Your task to perform on an android device: turn off priority inbox in the gmail app Image 0: 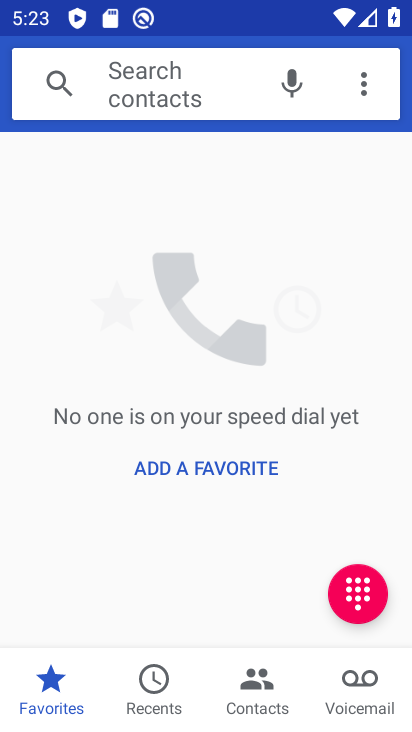
Step 0: press home button
Your task to perform on an android device: turn off priority inbox in the gmail app Image 1: 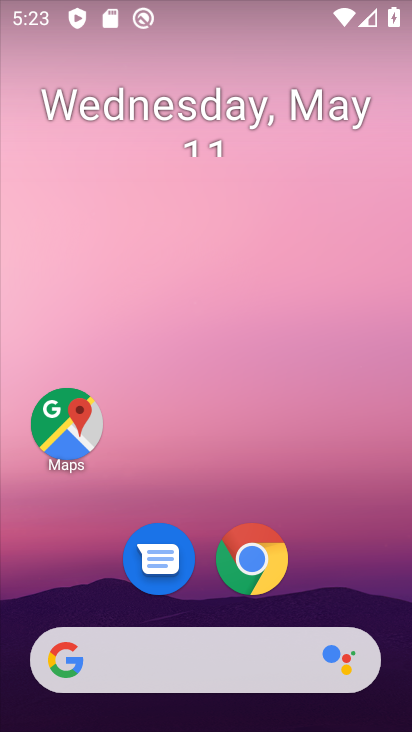
Step 1: drag from (318, 500) to (362, 11)
Your task to perform on an android device: turn off priority inbox in the gmail app Image 2: 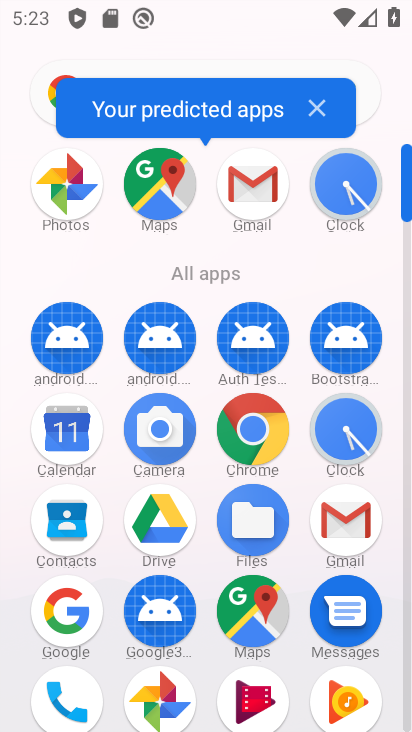
Step 2: click (262, 177)
Your task to perform on an android device: turn off priority inbox in the gmail app Image 3: 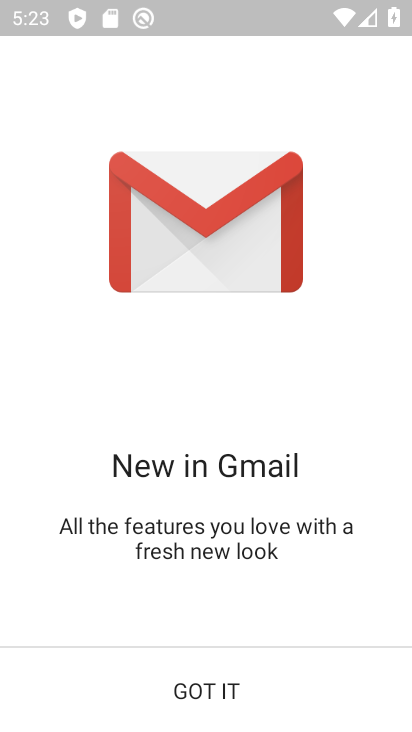
Step 3: click (268, 687)
Your task to perform on an android device: turn off priority inbox in the gmail app Image 4: 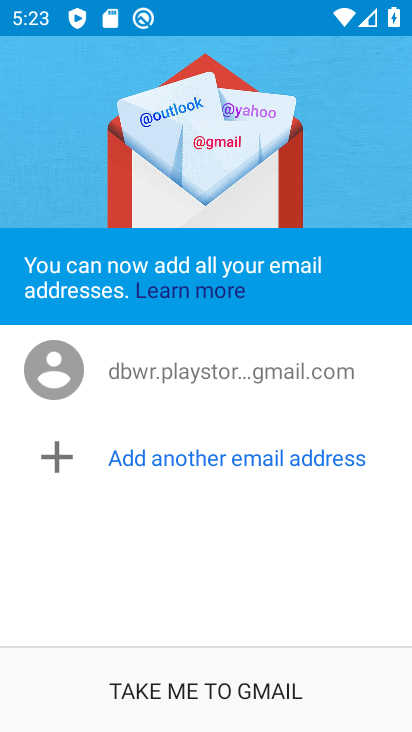
Step 4: click (247, 699)
Your task to perform on an android device: turn off priority inbox in the gmail app Image 5: 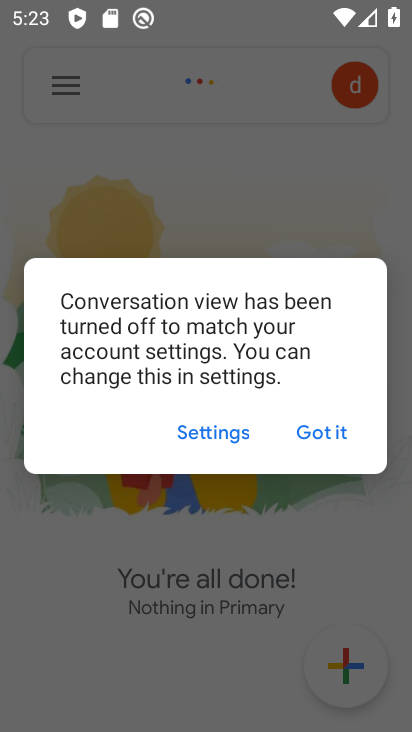
Step 5: click (316, 429)
Your task to perform on an android device: turn off priority inbox in the gmail app Image 6: 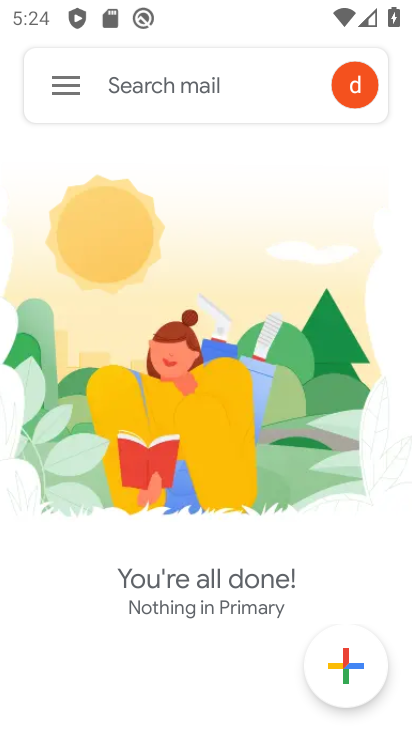
Step 6: click (71, 82)
Your task to perform on an android device: turn off priority inbox in the gmail app Image 7: 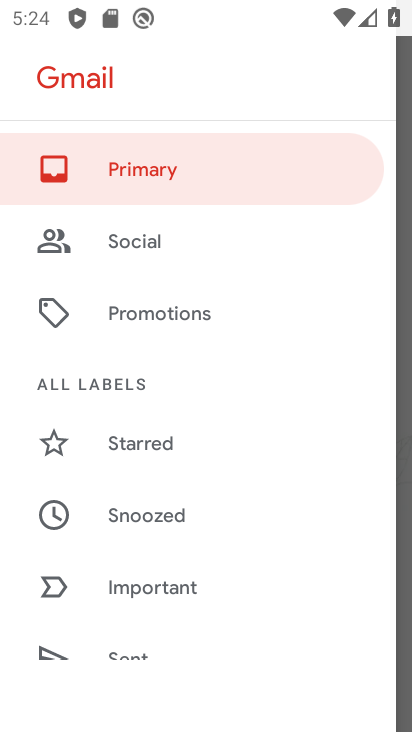
Step 7: drag from (205, 585) to (225, 232)
Your task to perform on an android device: turn off priority inbox in the gmail app Image 8: 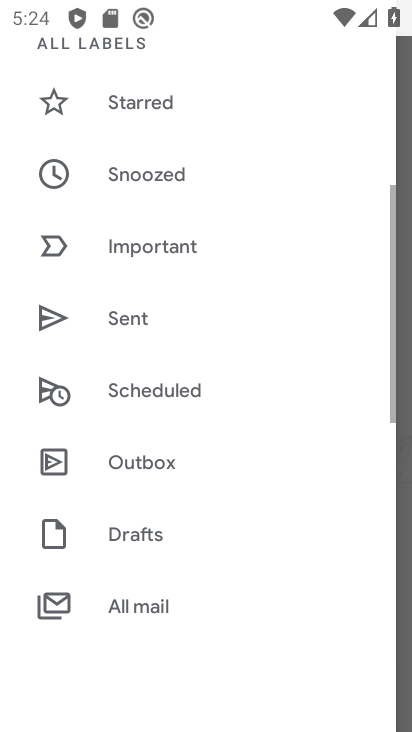
Step 8: drag from (140, 599) to (143, 326)
Your task to perform on an android device: turn off priority inbox in the gmail app Image 9: 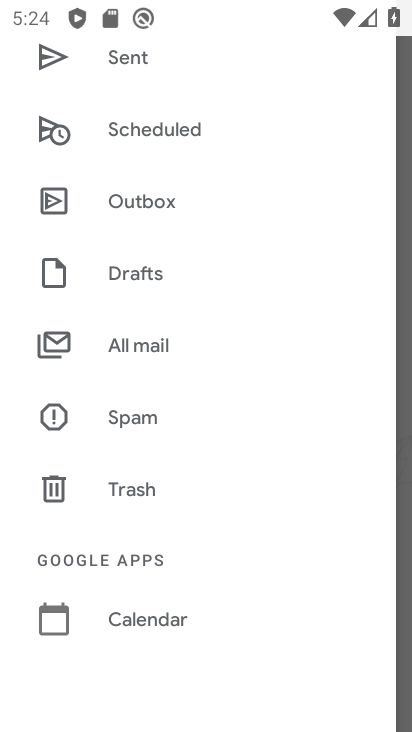
Step 9: drag from (192, 117) to (229, 575)
Your task to perform on an android device: turn off priority inbox in the gmail app Image 10: 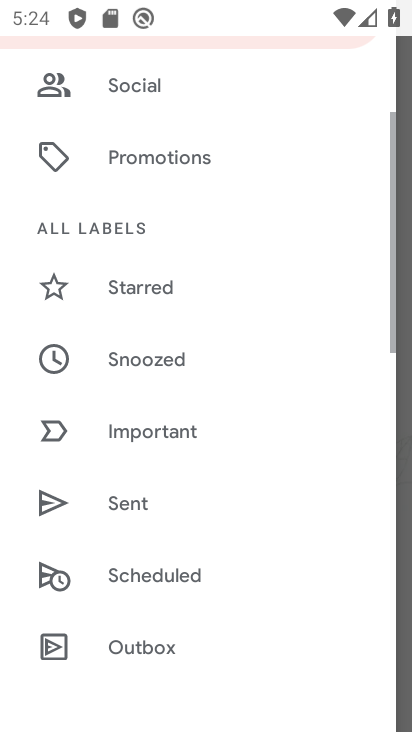
Step 10: drag from (179, 232) to (203, 638)
Your task to perform on an android device: turn off priority inbox in the gmail app Image 11: 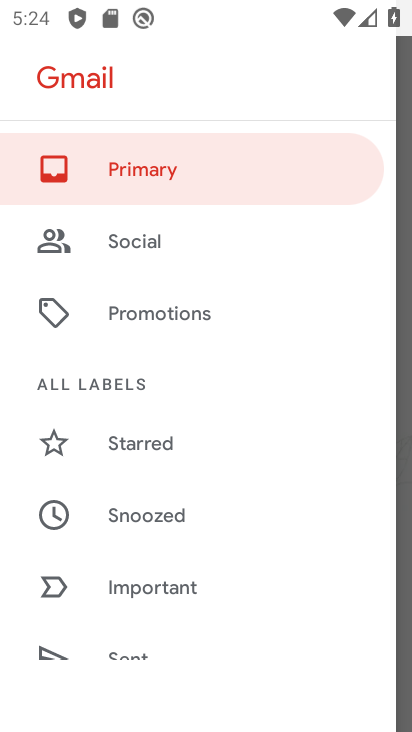
Step 11: drag from (233, 678) to (201, 168)
Your task to perform on an android device: turn off priority inbox in the gmail app Image 12: 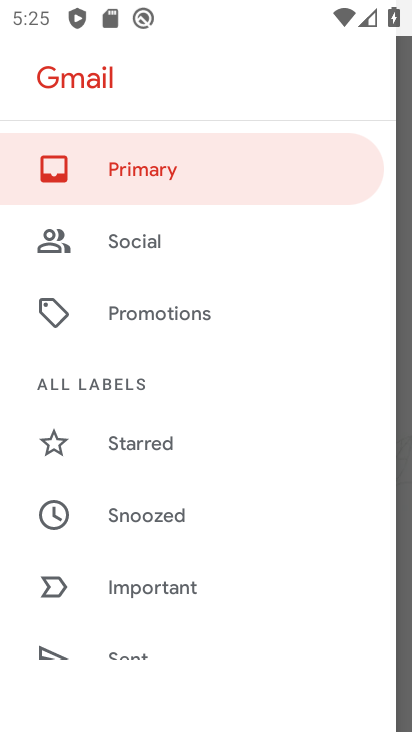
Step 12: drag from (173, 530) to (189, 61)
Your task to perform on an android device: turn off priority inbox in the gmail app Image 13: 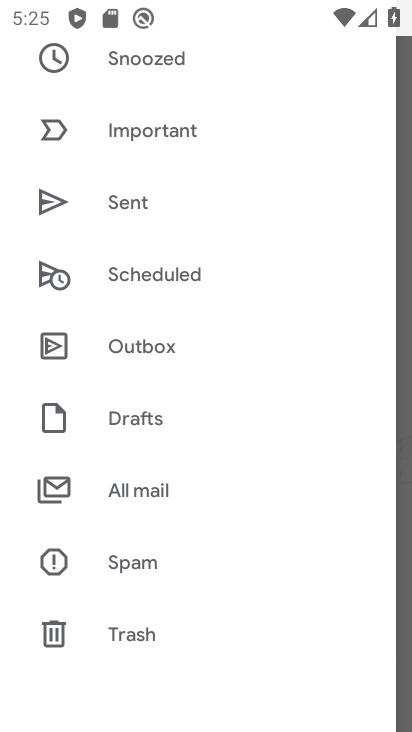
Step 13: drag from (158, 563) to (160, 329)
Your task to perform on an android device: turn off priority inbox in the gmail app Image 14: 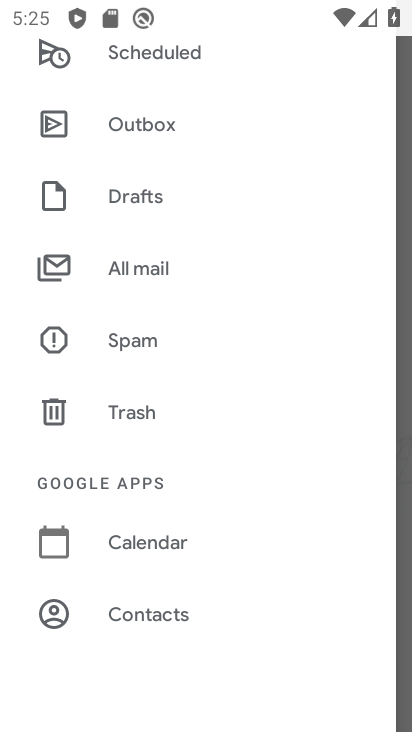
Step 14: drag from (157, 306) to (184, 635)
Your task to perform on an android device: turn off priority inbox in the gmail app Image 15: 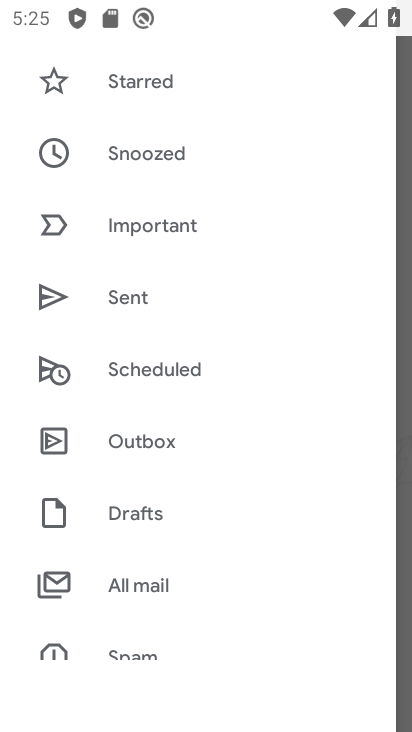
Step 15: drag from (134, 283) to (157, 643)
Your task to perform on an android device: turn off priority inbox in the gmail app Image 16: 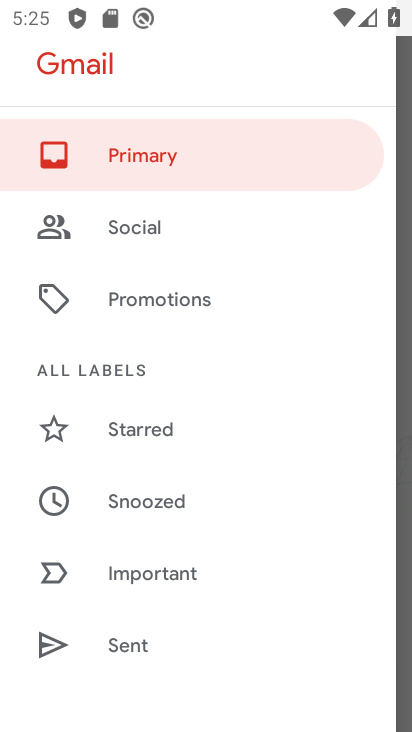
Step 16: drag from (192, 459) to (164, 73)
Your task to perform on an android device: turn off priority inbox in the gmail app Image 17: 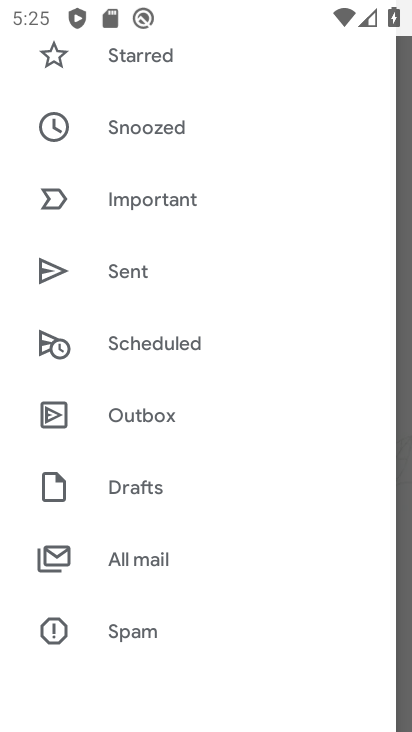
Step 17: drag from (216, 574) to (224, 181)
Your task to perform on an android device: turn off priority inbox in the gmail app Image 18: 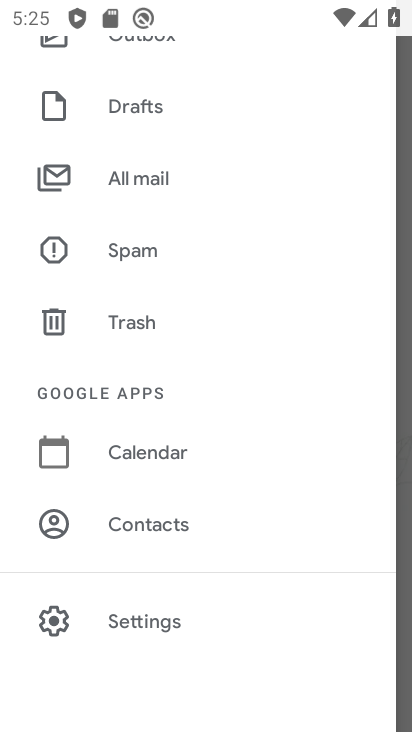
Step 18: click (185, 618)
Your task to perform on an android device: turn off priority inbox in the gmail app Image 19: 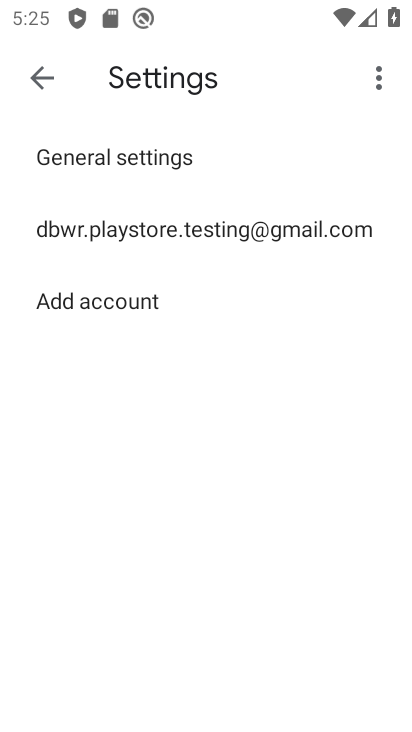
Step 19: click (229, 237)
Your task to perform on an android device: turn off priority inbox in the gmail app Image 20: 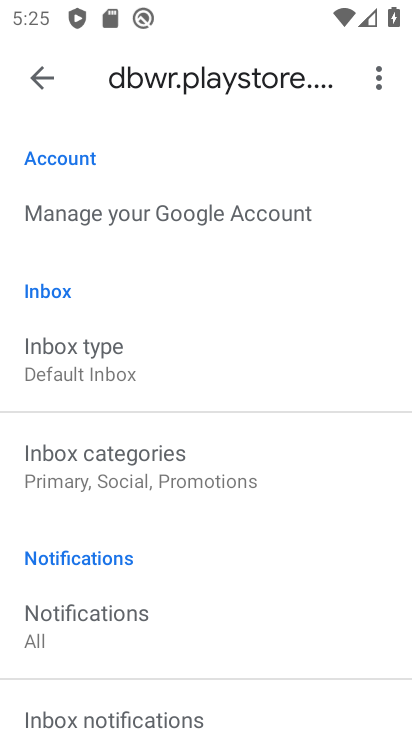
Step 20: drag from (172, 608) to (161, 262)
Your task to perform on an android device: turn off priority inbox in the gmail app Image 21: 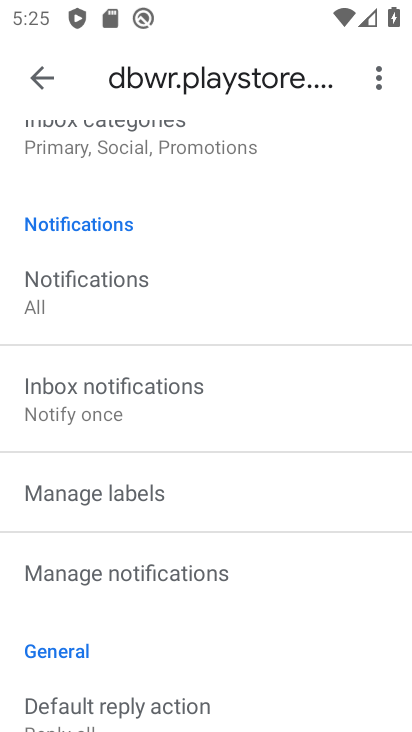
Step 21: drag from (199, 632) to (132, 729)
Your task to perform on an android device: turn off priority inbox in the gmail app Image 22: 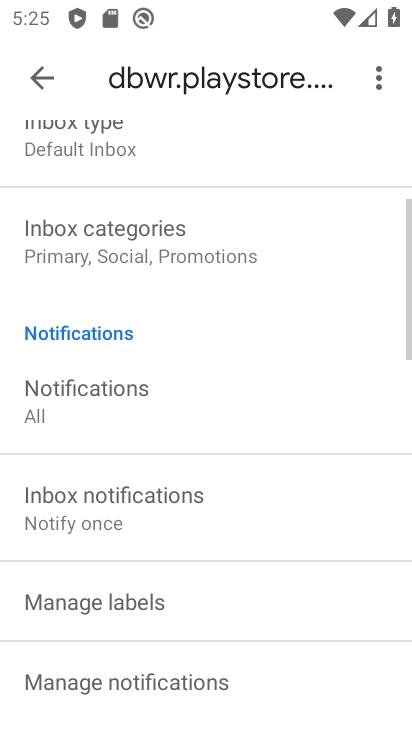
Step 22: drag from (215, 217) to (228, 656)
Your task to perform on an android device: turn off priority inbox in the gmail app Image 23: 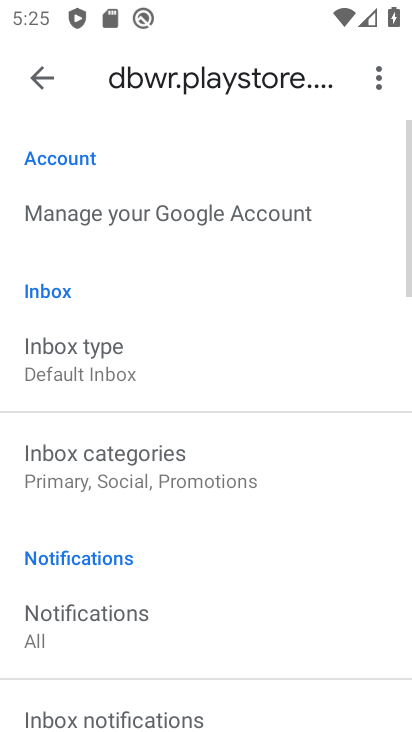
Step 23: click (142, 359)
Your task to perform on an android device: turn off priority inbox in the gmail app Image 24: 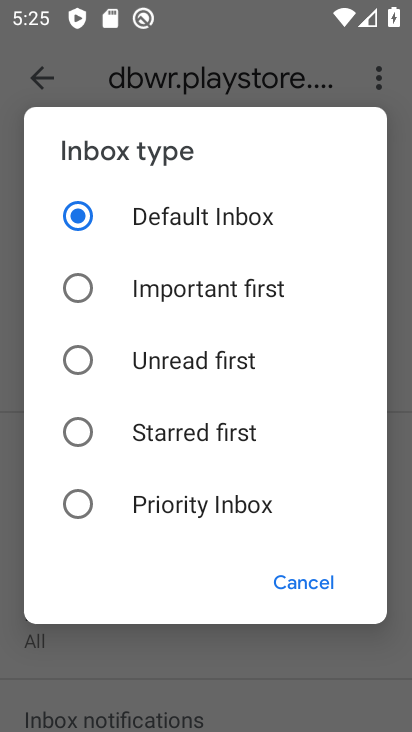
Step 24: click (142, 359)
Your task to perform on an android device: turn off priority inbox in the gmail app Image 25: 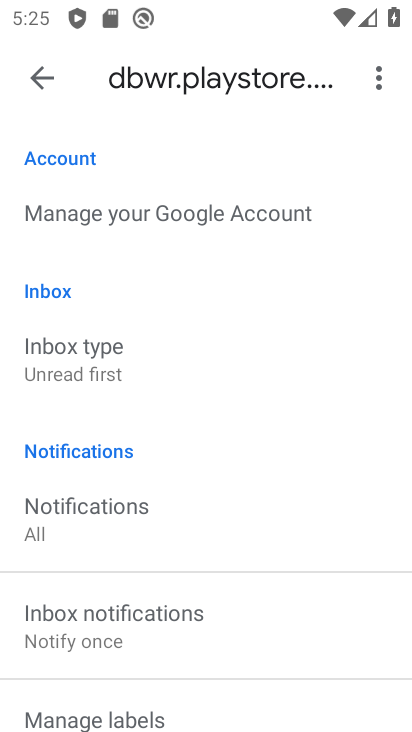
Step 25: task complete